Your task to perform on an android device: turn notification dots off Image 0: 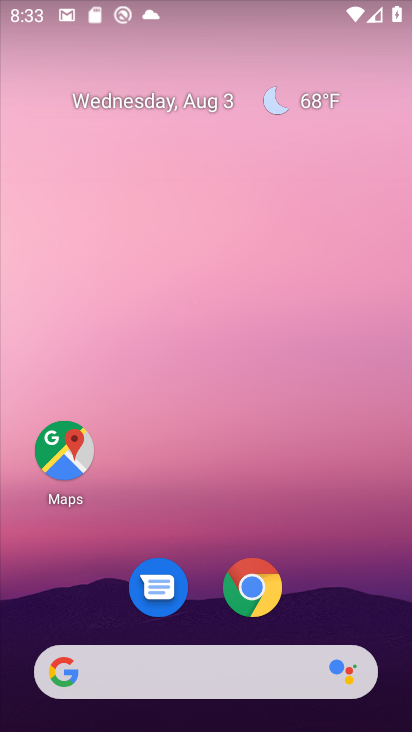
Step 0: drag from (302, 609) to (313, 69)
Your task to perform on an android device: turn notification dots off Image 1: 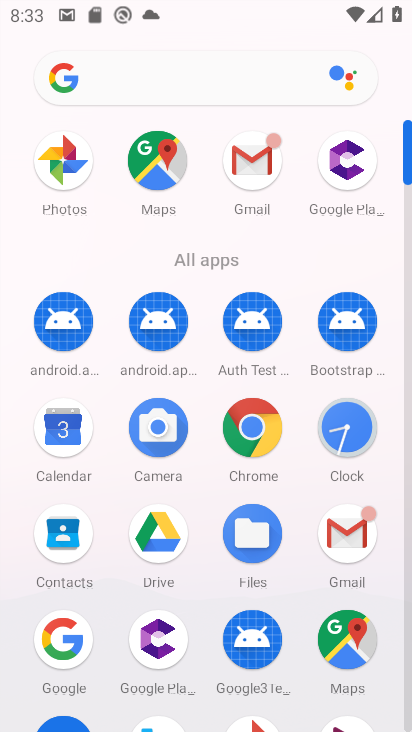
Step 1: drag from (205, 571) to (199, 115)
Your task to perform on an android device: turn notification dots off Image 2: 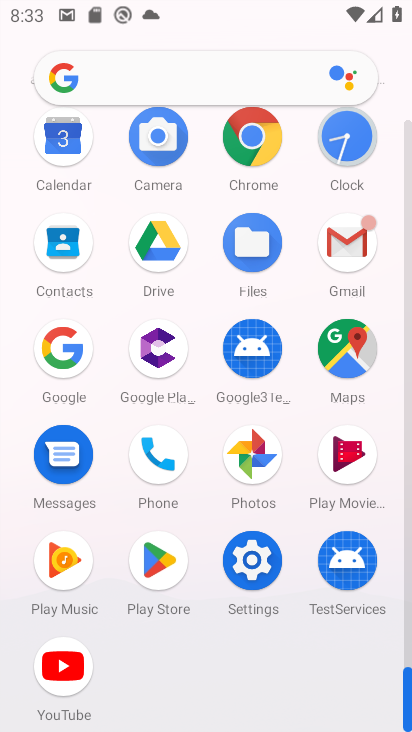
Step 2: click (251, 570)
Your task to perform on an android device: turn notification dots off Image 3: 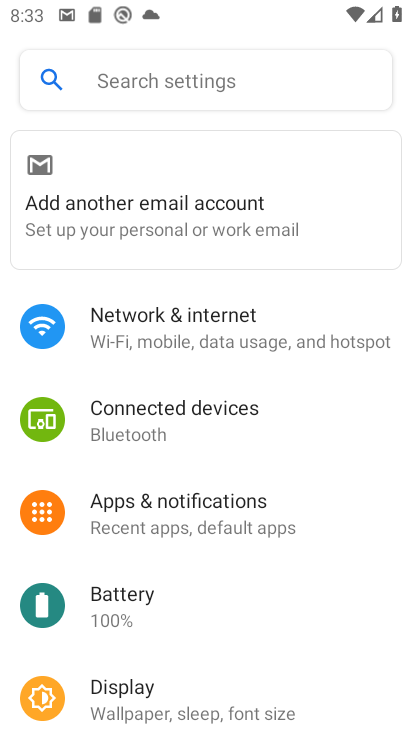
Step 3: drag from (211, 612) to (193, 252)
Your task to perform on an android device: turn notification dots off Image 4: 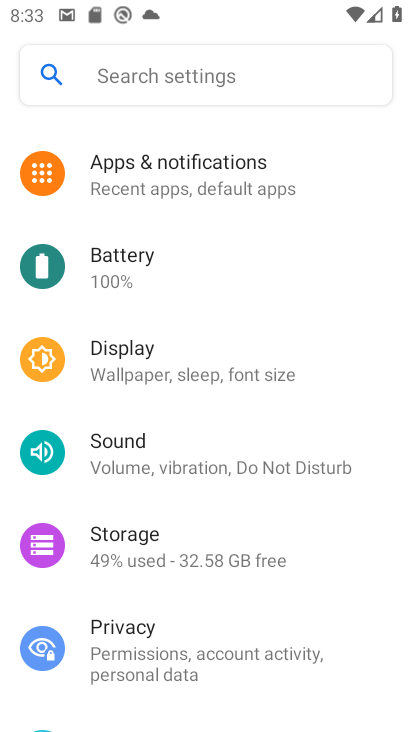
Step 4: click (178, 168)
Your task to perform on an android device: turn notification dots off Image 5: 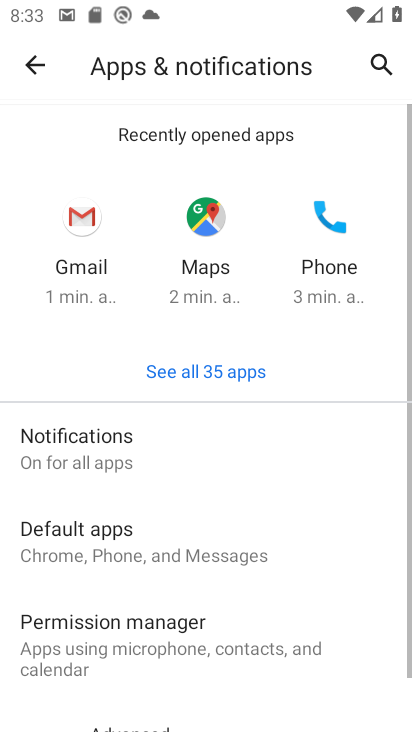
Step 5: drag from (277, 533) to (196, 139)
Your task to perform on an android device: turn notification dots off Image 6: 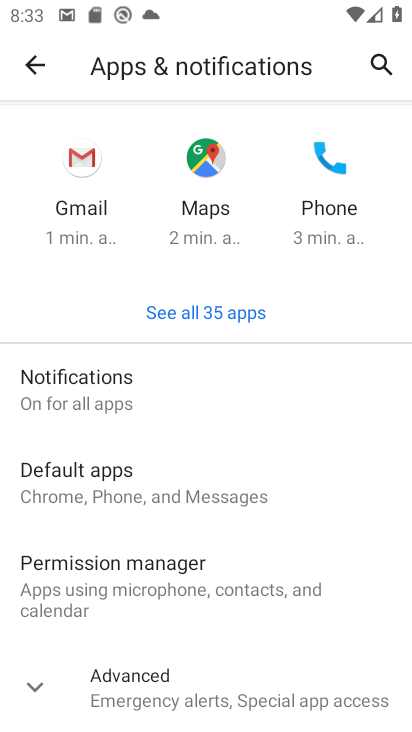
Step 6: click (143, 692)
Your task to perform on an android device: turn notification dots off Image 7: 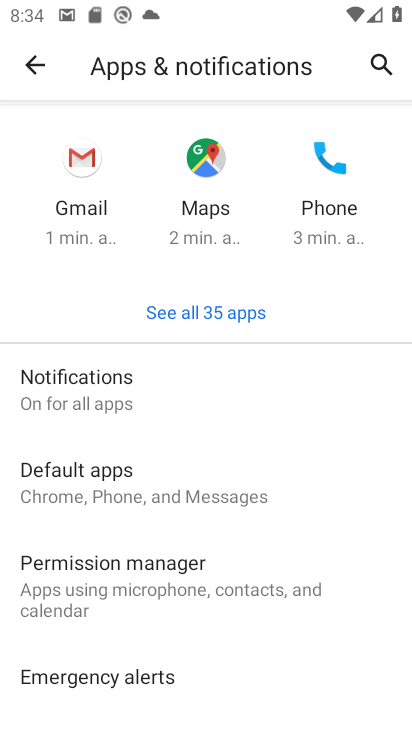
Step 7: drag from (108, 555) to (103, 148)
Your task to perform on an android device: turn notification dots off Image 8: 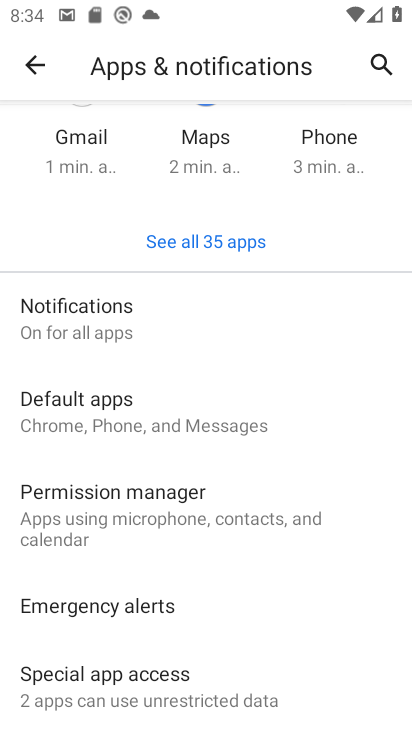
Step 8: click (81, 313)
Your task to perform on an android device: turn notification dots off Image 9: 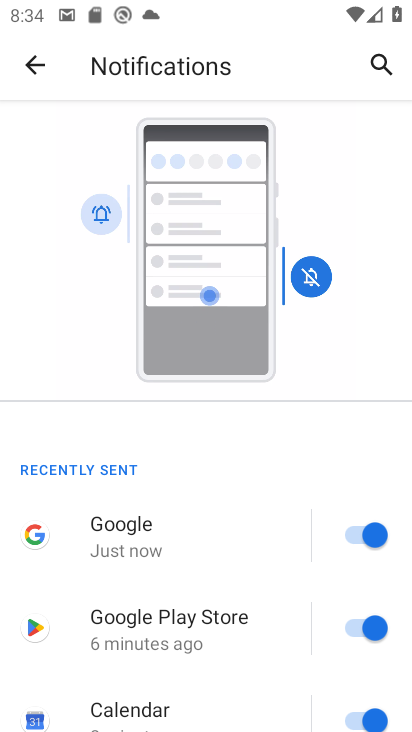
Step 9: drag from (219, 632) to (230, 192)
Your task to perform on an android device: turn notification dots off Image 10: 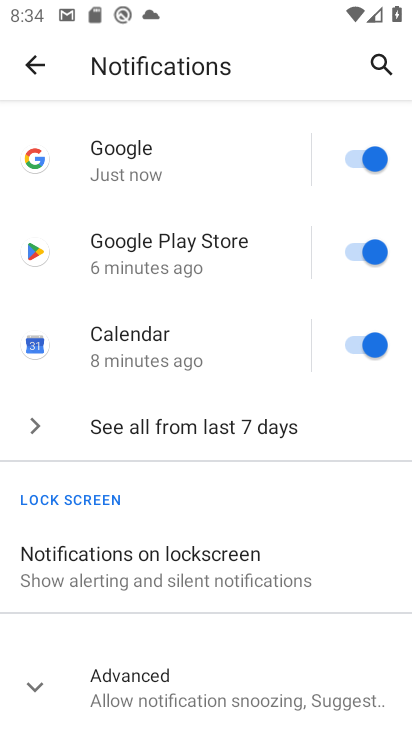
Step 10: click (194, 687)
Your task to perform on an android device: turn notification dots off Image 11: 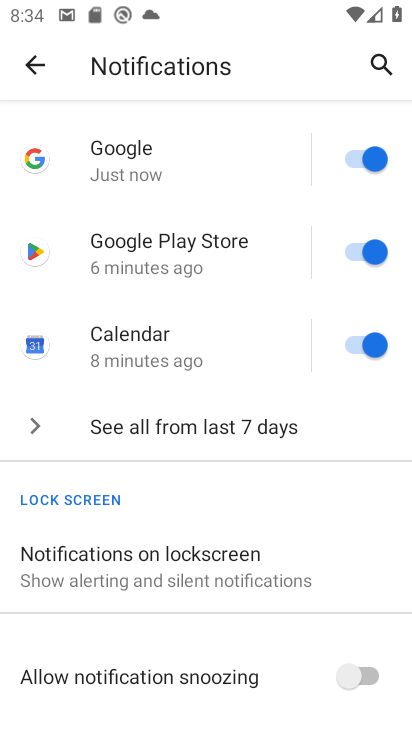
Step 11: drag from (143, 616) to (138, 134)
Your task to perform on an android device: turn notification dots off Image 12: 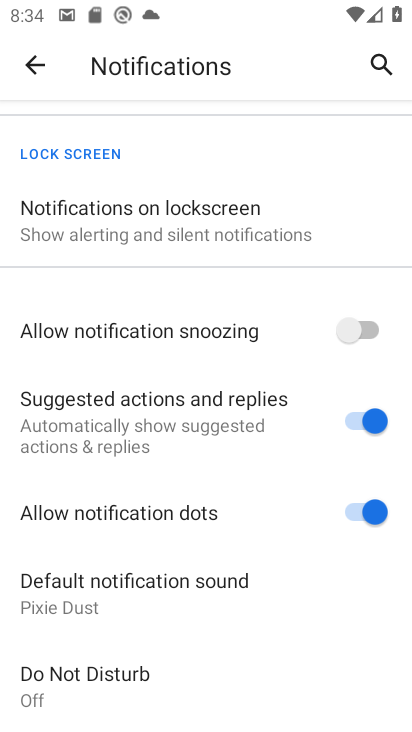
Step 12: click (364, 498)
Your task to perform on an android device: turn notification dots off Image 13: 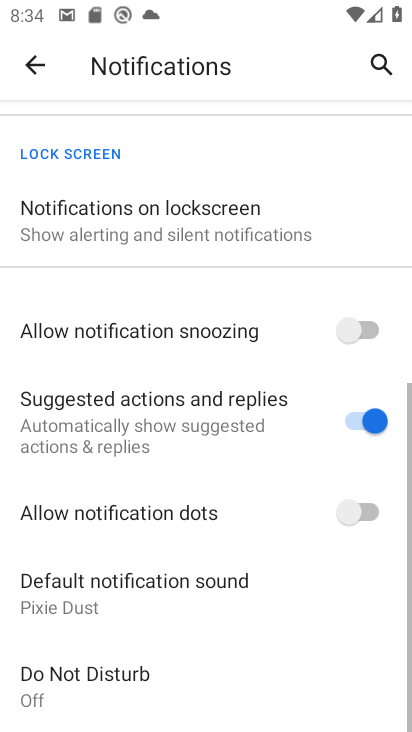
Step 13: task complete